Your task to perform on an android device: Open the calendar and show me this week's events? Image 0: 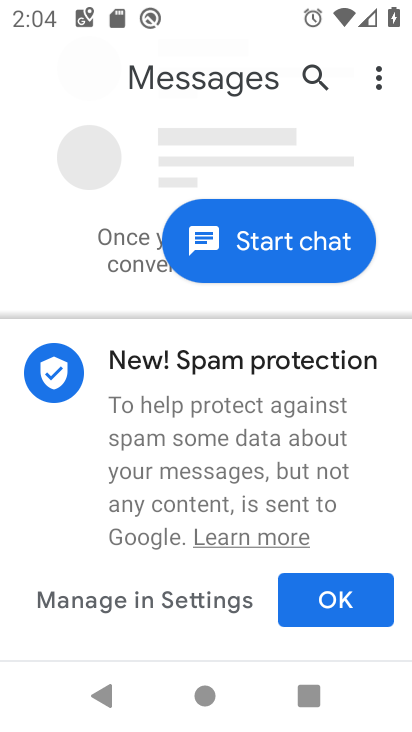
Step 0: press home button
Your task to perform on an android device: Open the calendar and show me this week's events? Image 1: 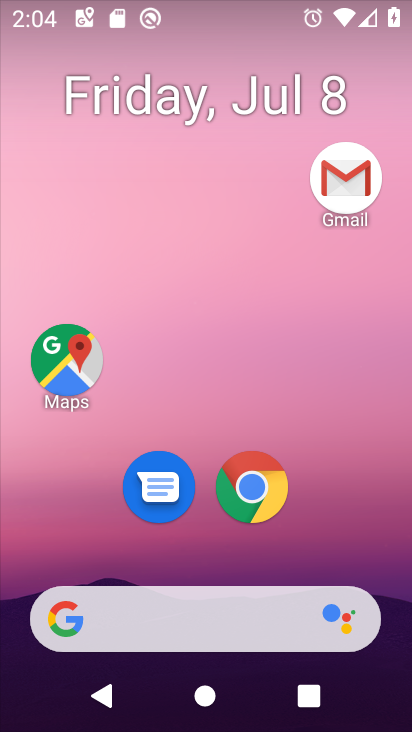
Step 1: drag from (356, 537) to (341, 176)
Your task to perform on an android device: Open the calendar and show me this week's events? Image 2: 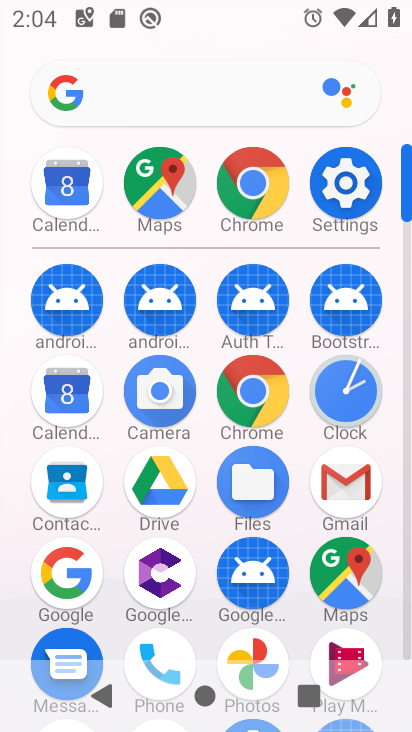
Step 2: click (77, 390)
Your task to perform on an android device: Open the calendar and show me this week's events? Image 3: 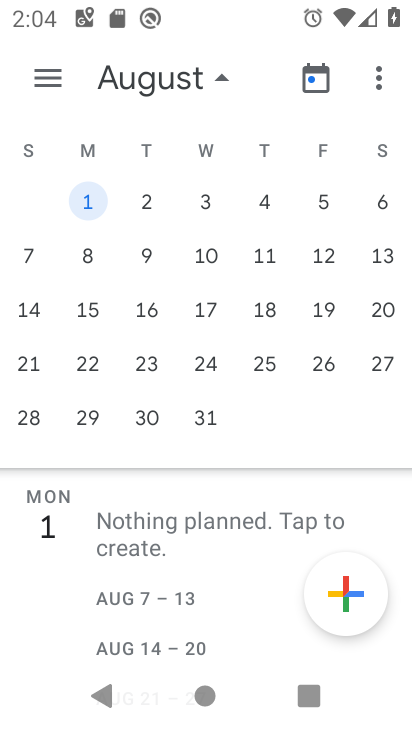
Step 3: task complete